Your task to perform on an android device: Show me popular games on the Play Store Image 0: 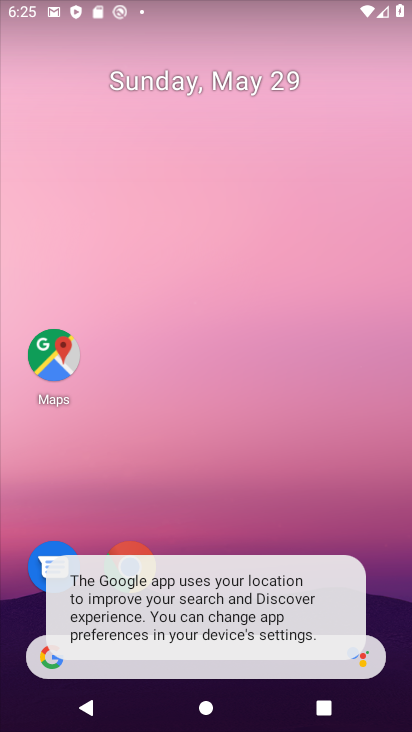
Step 0: drag from (383, 622) to (311, 18)
Your task to perform on an android device: Show me popular games on the Play Store Image 1: 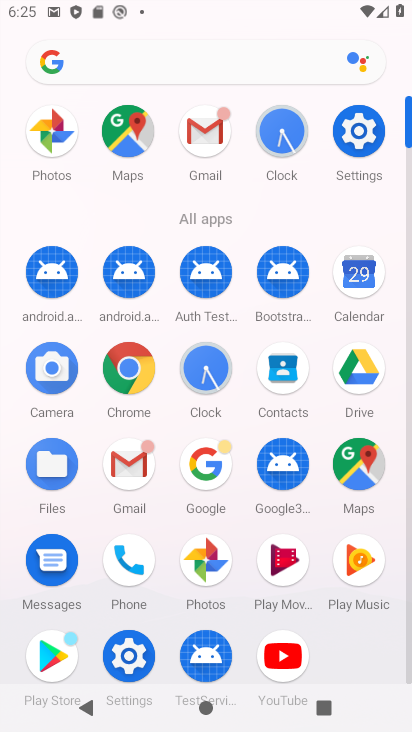
Step 1: click (66, 642)
Your task to perform on an android device: Show me popular games on the Play Store Image 2: 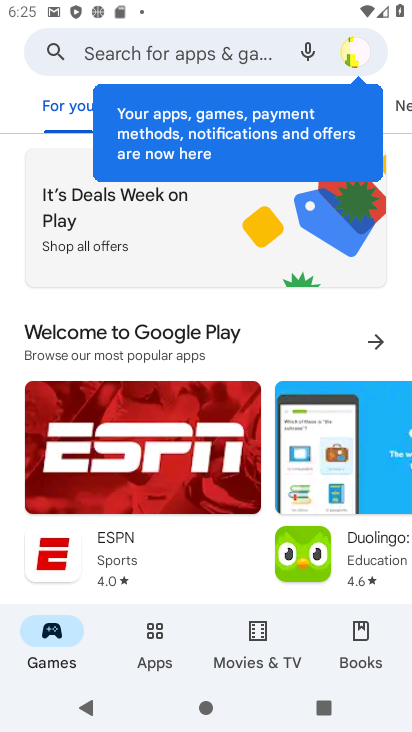
Step 2: click (188, 47)
Your task to perform on an android device: Show me popular games on the Play Store Image 3: 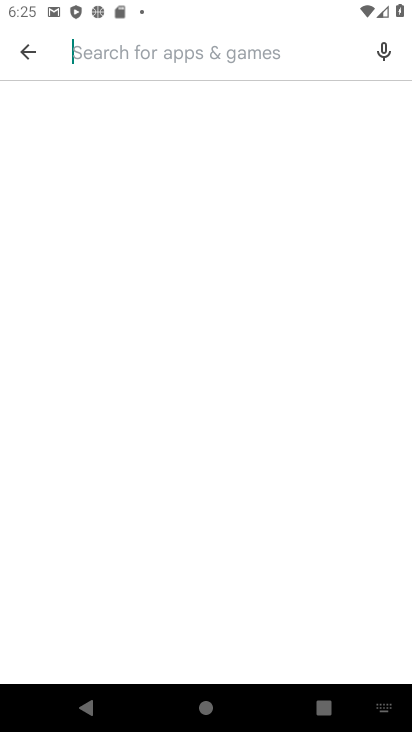
Step 3: click (26, 43)
Your task to perform on an android device: Show me popular games on the Play Store Image 4: 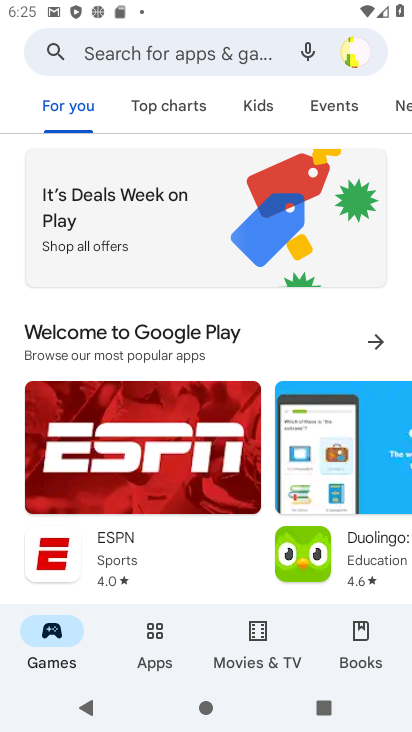
Step 4: drag from (97, 498) to (139, 155)
Your task to perform on an android device: Show me popular games on the Play Store Image 5: 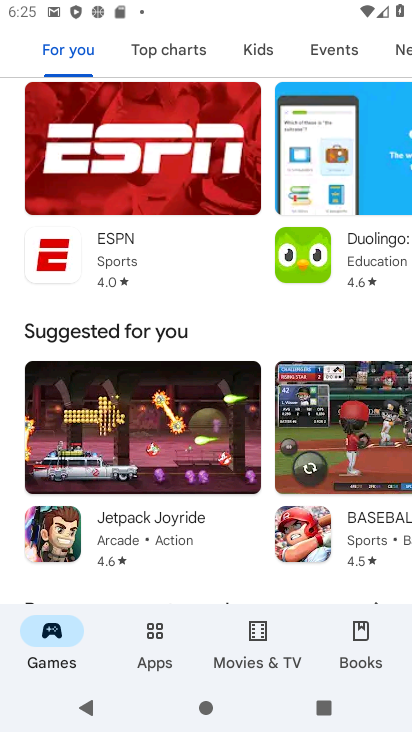
Step 5: drag from (238, 496) to (193, 50)
Your task to perform on an android device: Show me popular games on the Play Store Image 6: 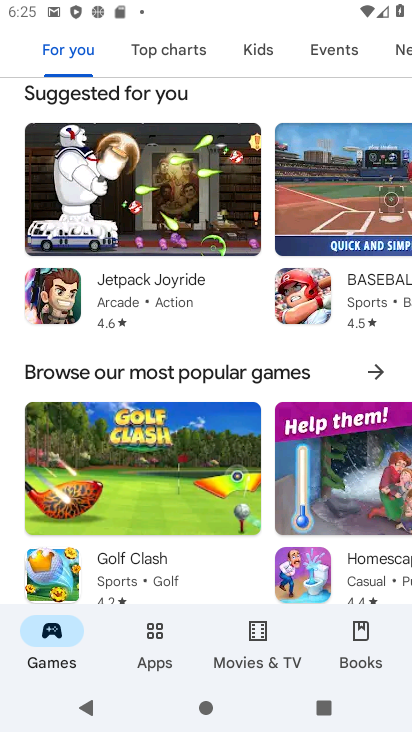
Step 6: drag from (171, 484) to (171, 325)
Your task to perform on an android device: Show me popular games on the Play Store Image 7: 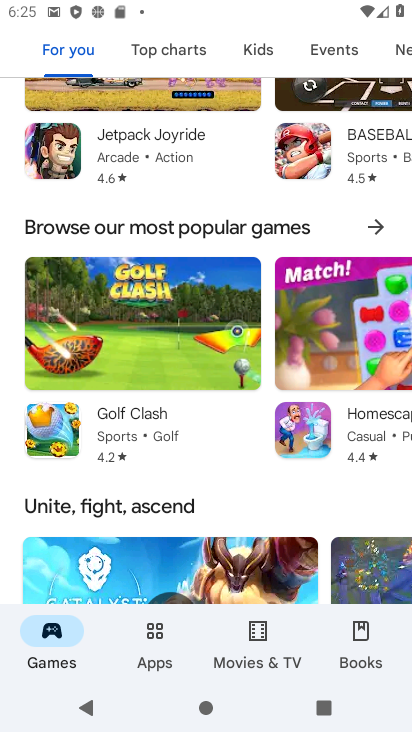
Step 7: click (375, 233)
Your task to perform on an android device: Show me popular games on the Play Store Image 8: 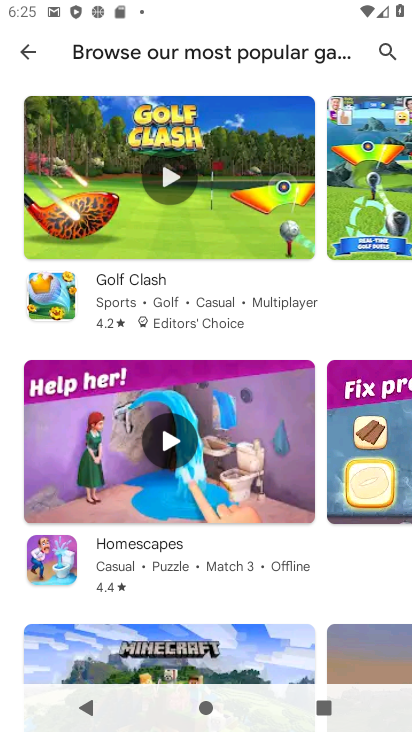
Step 8: task complete